Your task to perform on an android device: change the clock display to show seconds Image 0: 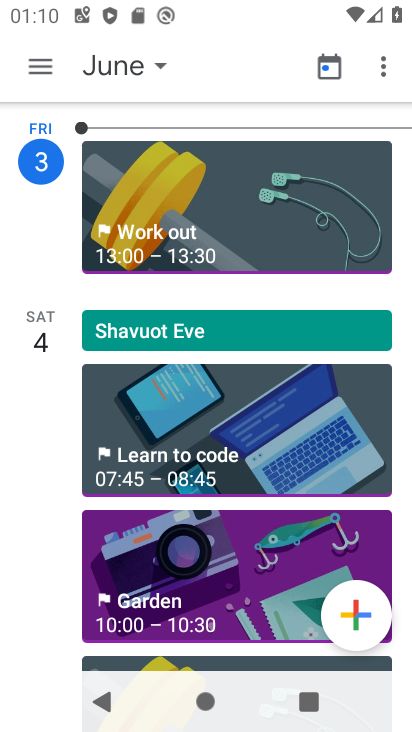
Step 0: press home button
Your task to perform on an android device: change the clock display to show seconds Image 1: 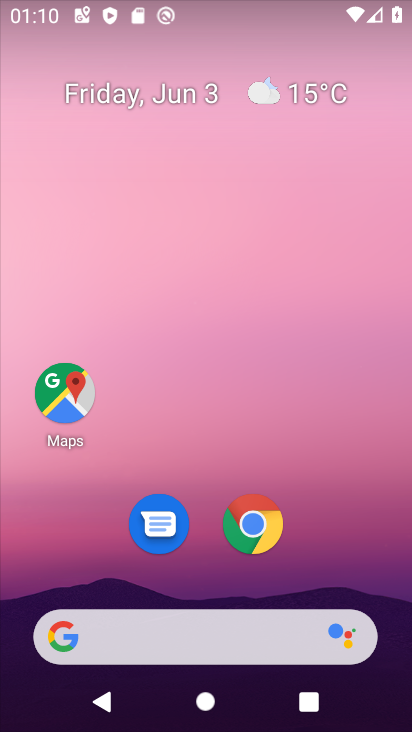
Step 1: drag from (328, 535) to (347, 15)
Your task to perform on an android device: change the clock display to show seconds Image 2: 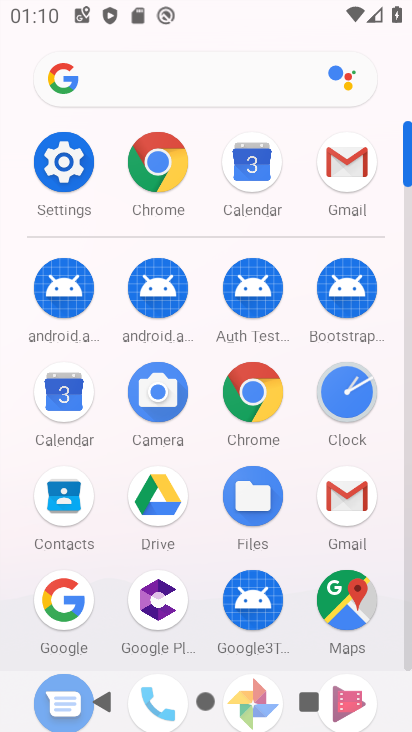
Step 2: click (337, 382)
Your task to perform on an android device: change the clock display to show seconds Image 3: 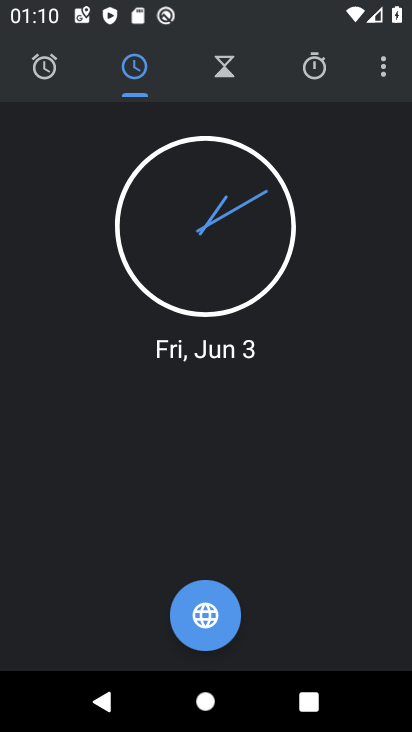
Step 3: click (382, 70)
Your task to perform on an android device: change the clock display to show seconds Image 4: 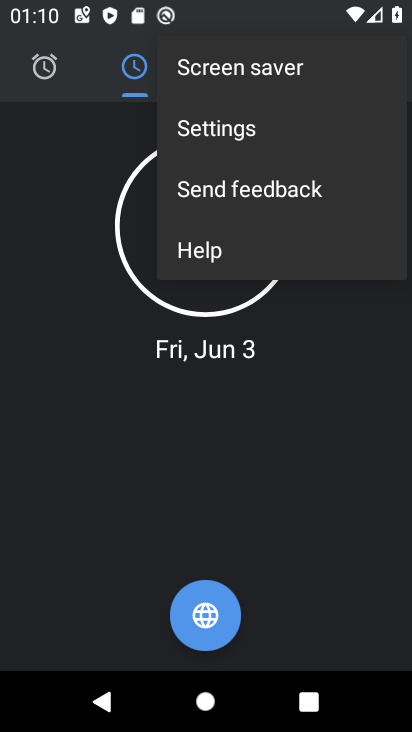
Step 4: click (321, 125)
Your task to perform on an android device: change the clock display to show seconds Image 5: 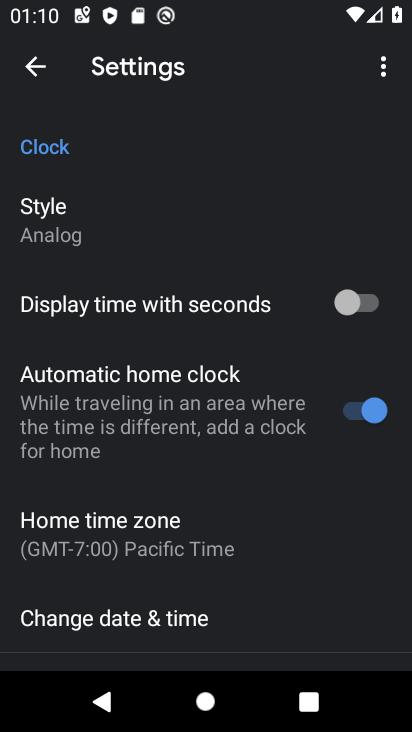
Step 5: click (354, 292)
Your task to perform on an android device: change the clock display to show seconds Image 6: 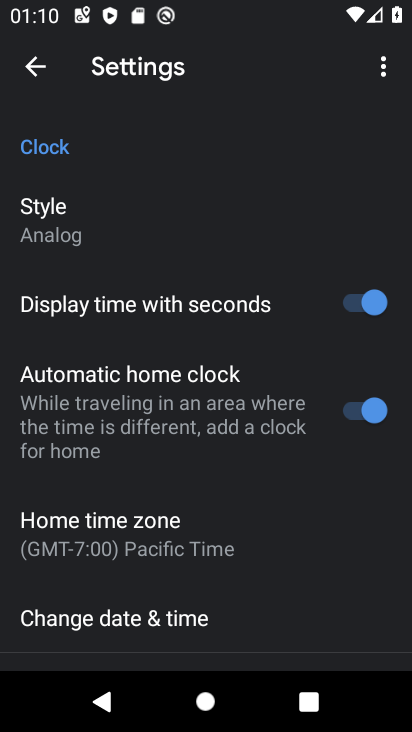
Step 6: click (35, 61)
Your task to perform on an android device: change the clock display to show seconds Image 7: 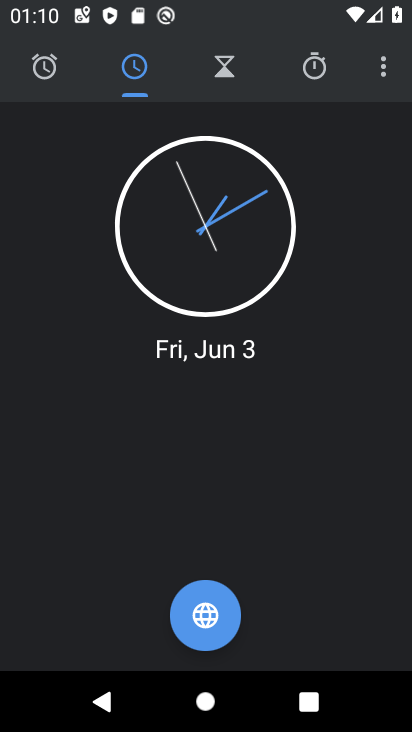
Step 7: task complete